Your task to perform on an android device: turn pop-ups on in chrome Image 0: 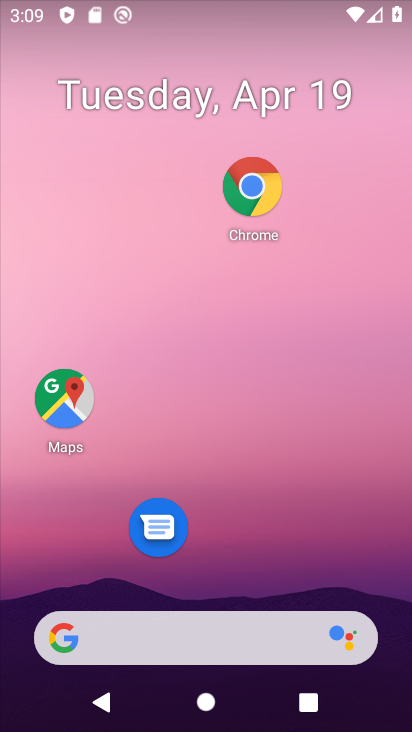
Step 0: drag from (194, 420) to (210, 281)
Your task to perform on an android device: turn pop-ups on in chrome Image 1: 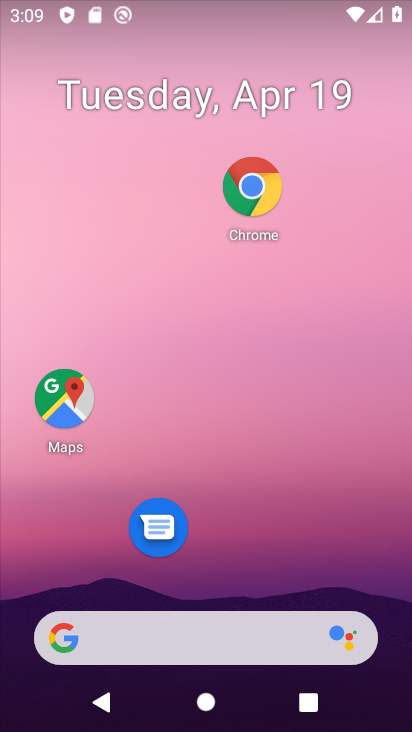
Step 1: drag from (247, 490) to (336, 184)
Your task to perform on an android device: turn pop-ups on in chrome Image 2: 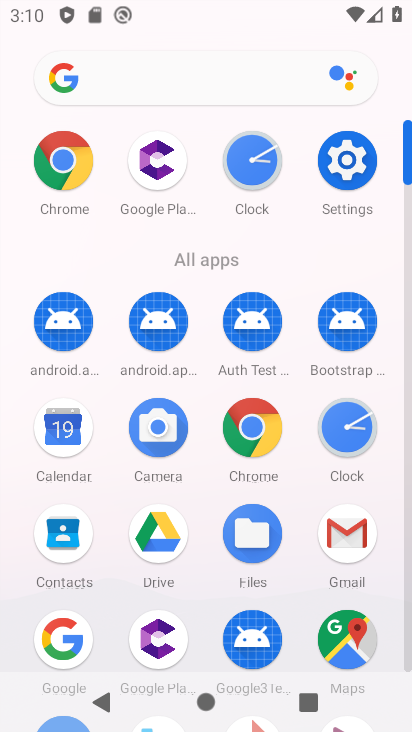
Step 2: click (60, 150)
Your task to perform on an android device: turn pop-ups on in chrome Image 3: 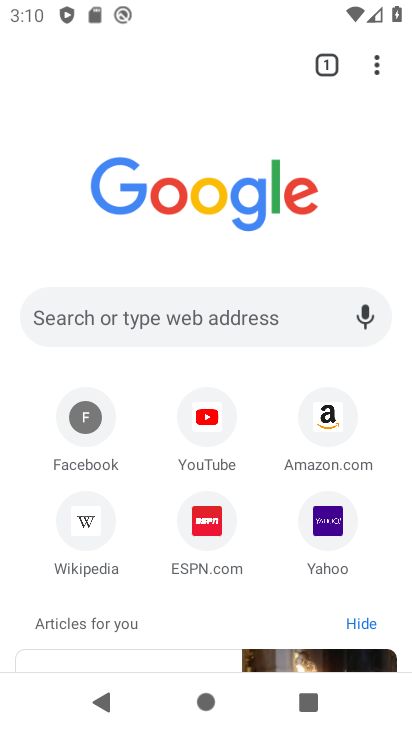
Step 3: click (382, 65)
Your task to perform on an android device: turn pop-ups on in chrome Image 4: 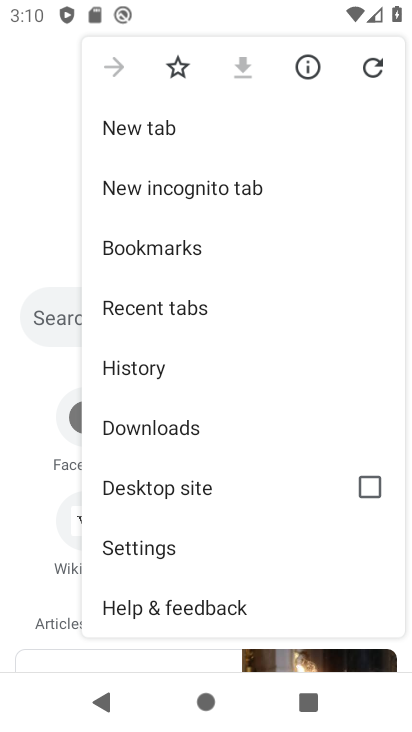
Step 4: click (162, 541)
Your task to perform on an android device: turn pop-ups on in chrome Image 5: 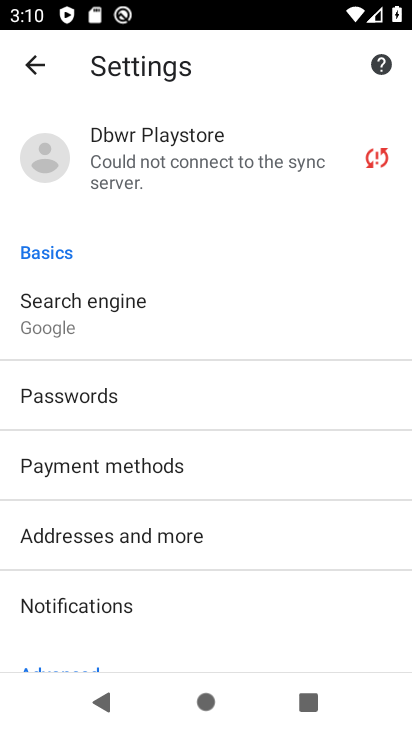
Step 5: drag from (165, 567) to (220, 277)
Your task to perform on an android device: turn pop-ups on in chrome Image 6: 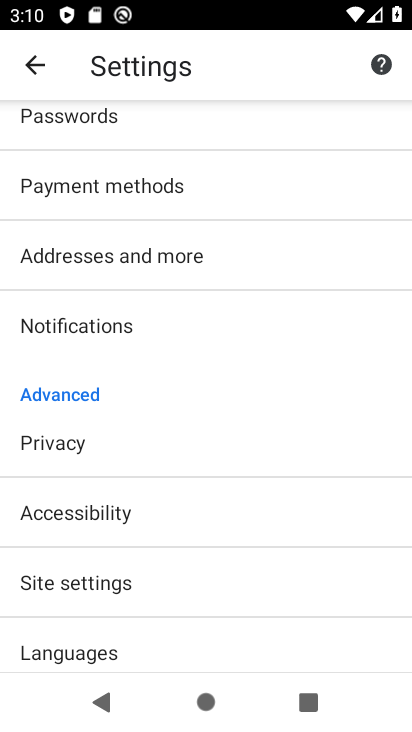
Step 6: click (136, 578)
Your task to perform on an android device: turn pop-ups on in chrome Image 7: 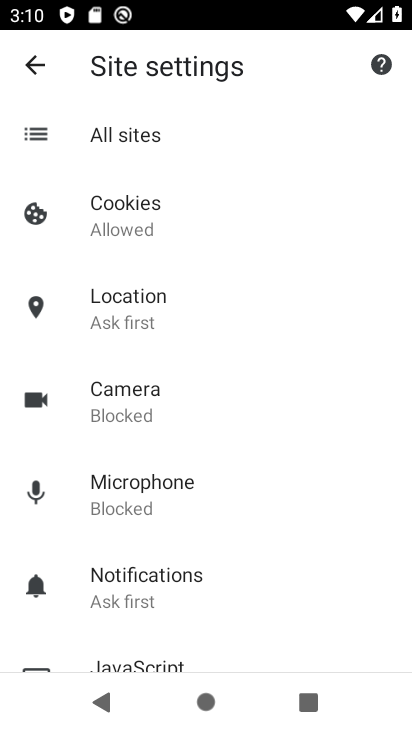
Step 7: drag from (229, 560) to (236, 187)
Your task to perform on an android device: turn pop-ups on in chrome Image 8: 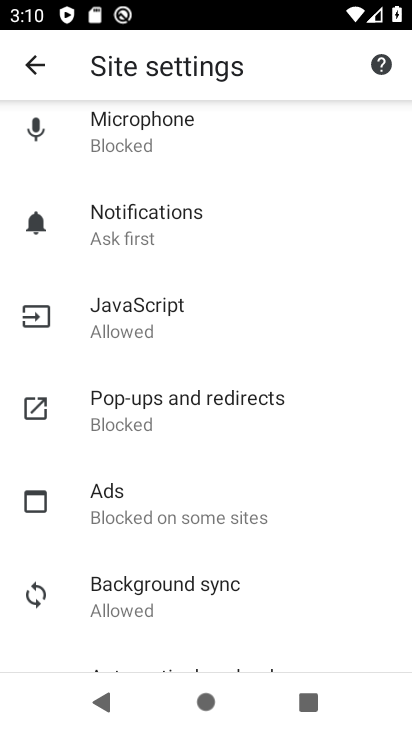
Step 8: click (192, 408)
Your task to perform on an android device: turn pop-ups on in chrome Image 9: 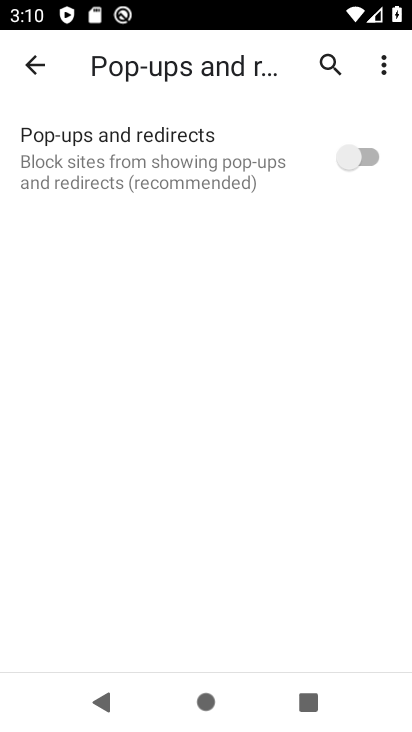
Step 9: click (357, 160)
Your task to perform on an android device: turn pop-ups on in chrome Image 10: 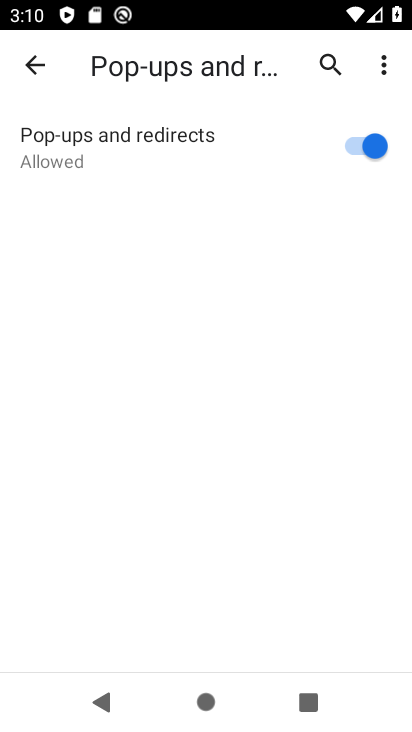
Step 10: task complete